Your task to perform on an android device: Do I have any events today? Image 0: 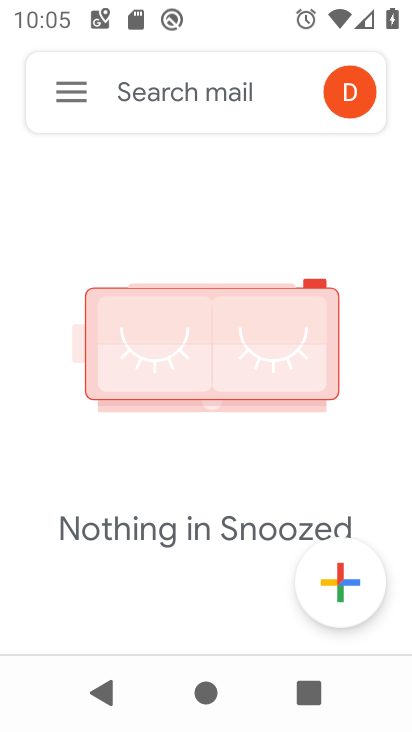
Step 0: press home button
Your task to perform on an android device: Do I have any events today? Image 1: 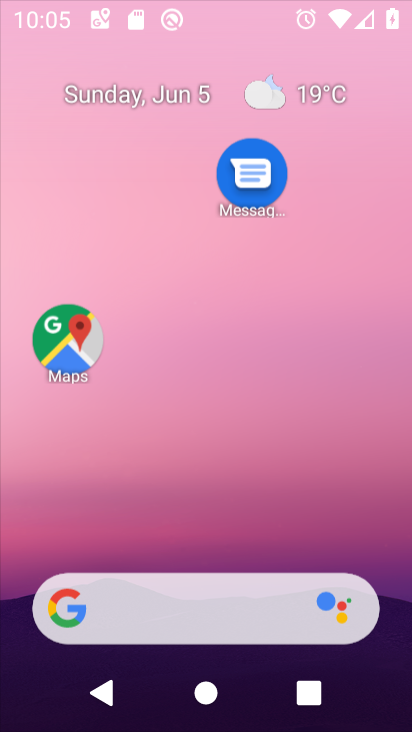
Step 1: drag from (207, 548) to (263, 10)
Your task to perform on an android device: Do I have any events today? Image 2: 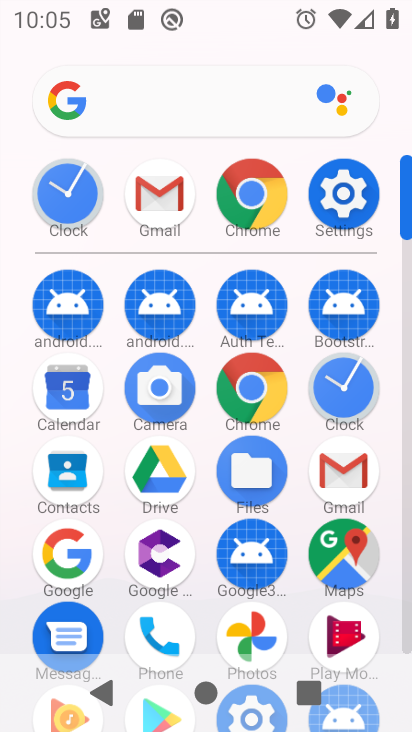
Step 2: click (62, 379)
Your task to perform on an android device: Do I have any events today? Image 3: 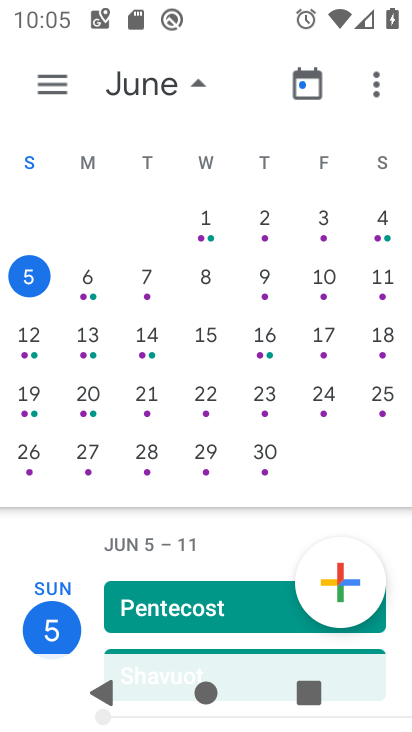
Step 3: click (159, 96)
Your task to perform on an android device: Do I have any events today? Image 4: 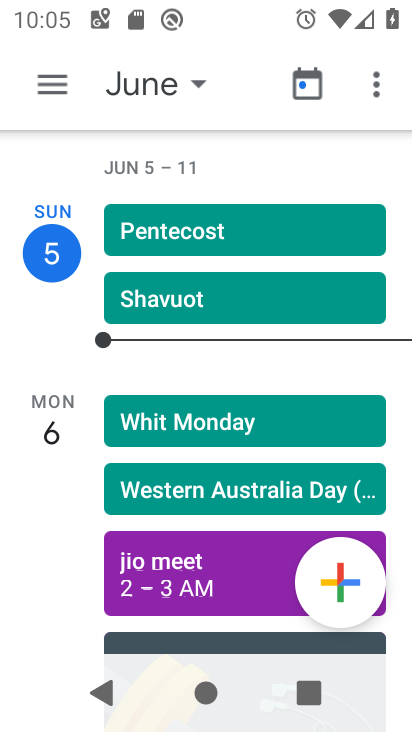
Step 4: drag from (143, 543) to (146, 144)
Your task to perform on an android device: Do I have any events today? Image 5: 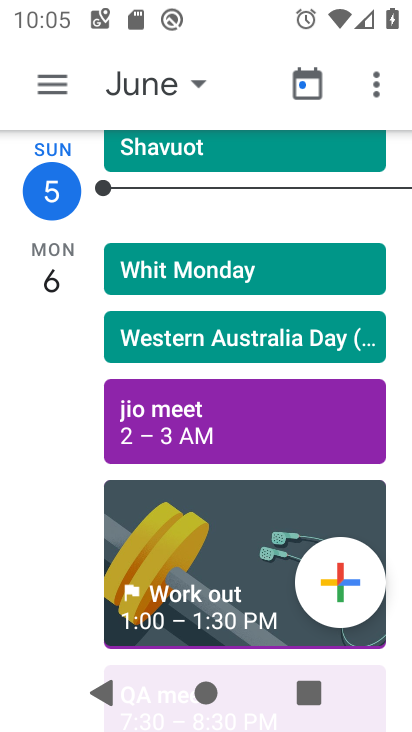
Step 5: drag from (191, 493) to (249, 214)
Your task to perform on an android device: Do I have any events today? Image 6: 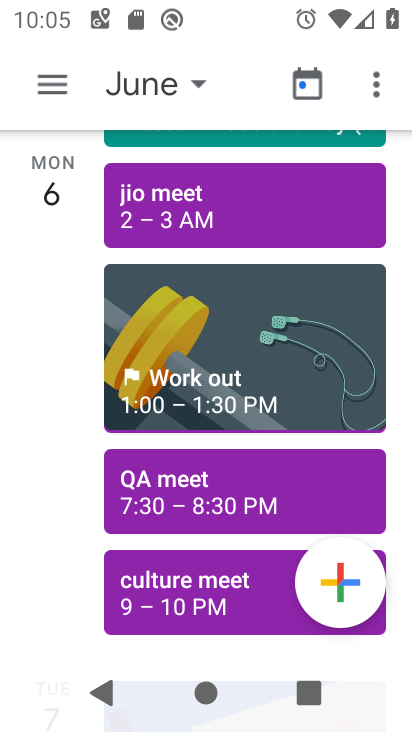
Step 6: drag from (228, 401) to (258, 728)
Your task to perform on an android device: Do I have any events today? Image 7: 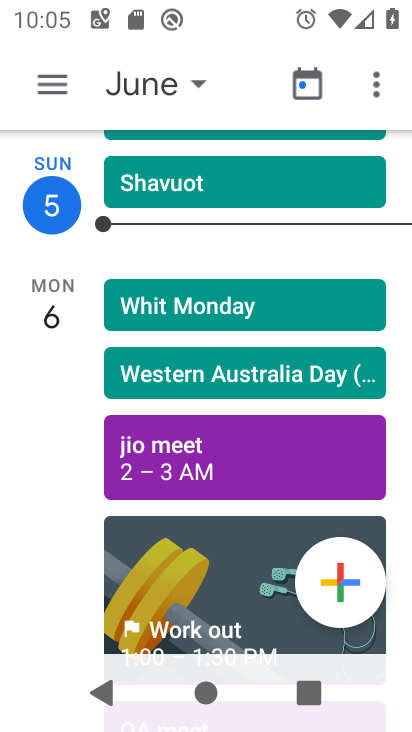
Step 7: drag from (281, 269) to (312, 625)
Your task to perform on an android device: Do I have any events today? Image 8: 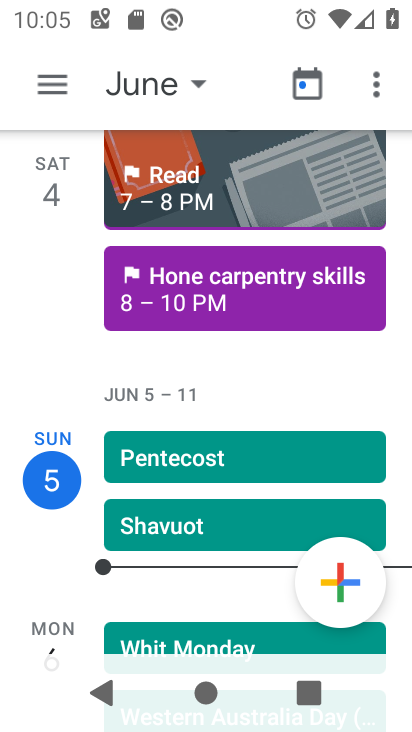
Step 8: drag from (220, 571) to (261, 153)
Your task to perform on an android device: Do I have any events today? Image 9: 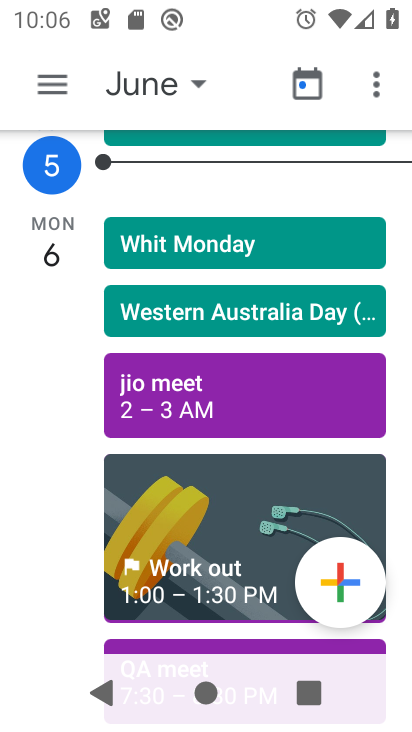
Step 9: drag from (205, 573) to (267, 229)
Your task to perform on an android device: Do I have any events today? Image 10: 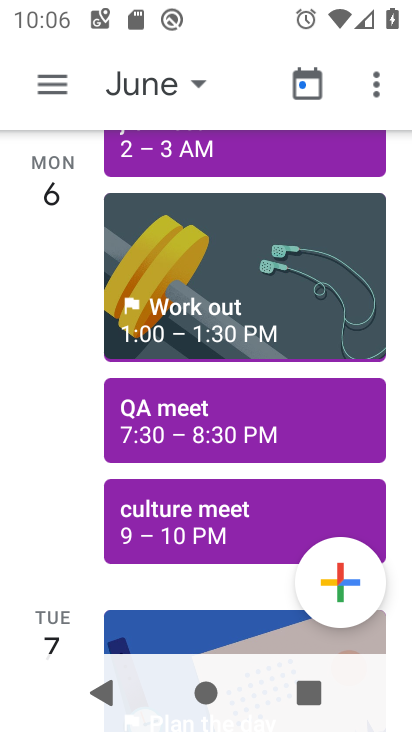
Step 10: drag from (246, 331) to (248, 659)
Your task to perform on an android device: Do I have any events today? Image 11: 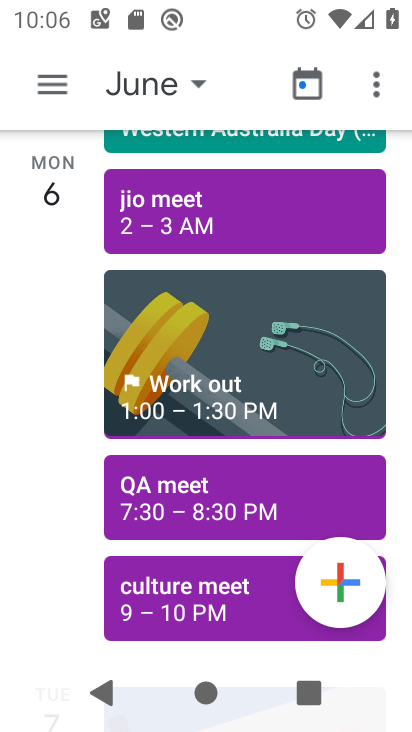
Step 11: drag from (208, 215) to (352, 690)
Your task to perform on an android device: Do I have any events today? Image 12: 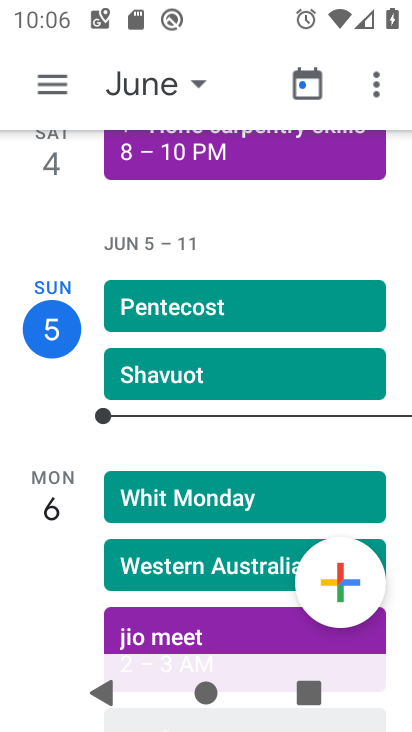
Step 12: click (210, 77)
Your task to perform on an android device: Do I have any events today? Image 13: 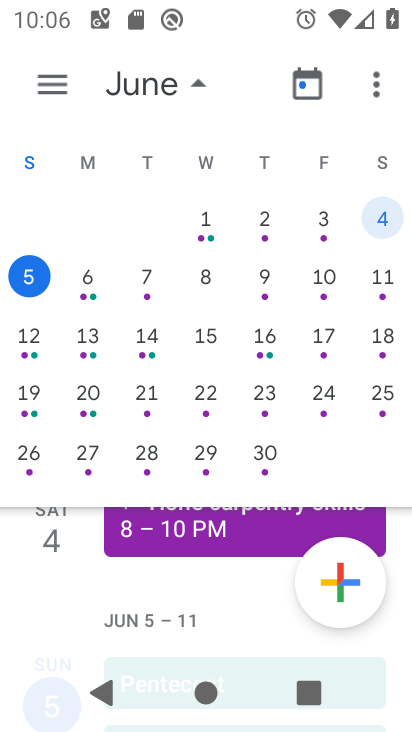
Step 13: drag from (236, 486) to (277, 173)
Your task to perform on an android device: Do I have any events today? Image 14: 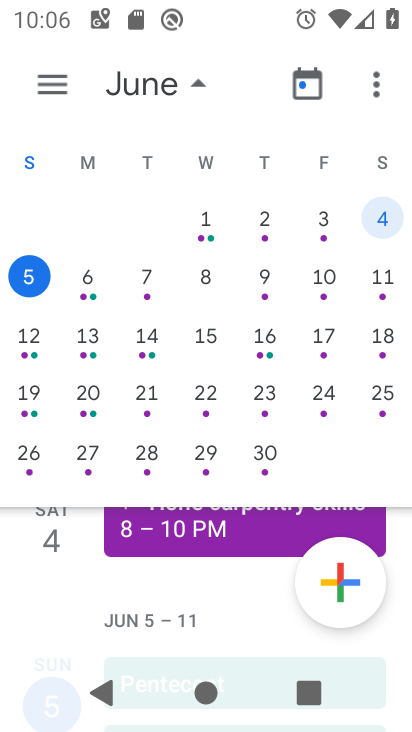
Step 14: click (60, 283)
Your task to perform on an android device: Do I have any events today? Image 15: 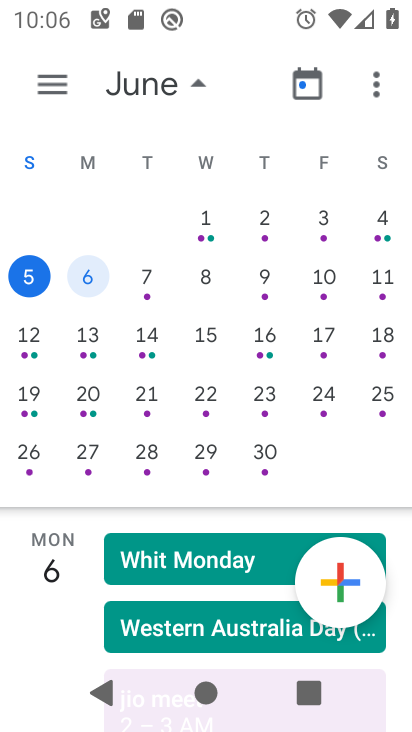
Step 15: click (19, 270)
Your task to perform on an android device: Do I have any events today? Image 16: 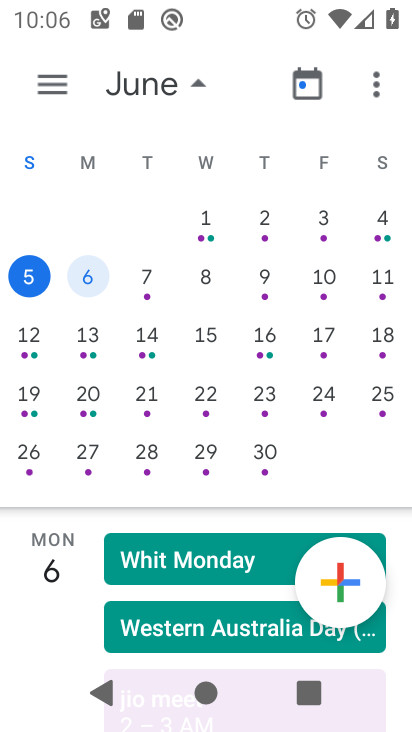
Step 16: click (21, 273)
Your task to perform on an android device: Do I have any events today? Image 17: 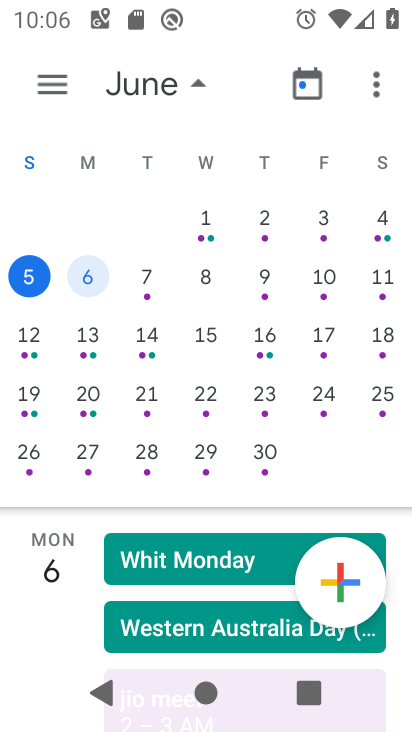
Step 17: click (26, 281)
Your task to perform on an android device: Do I have any events today? Image 18: 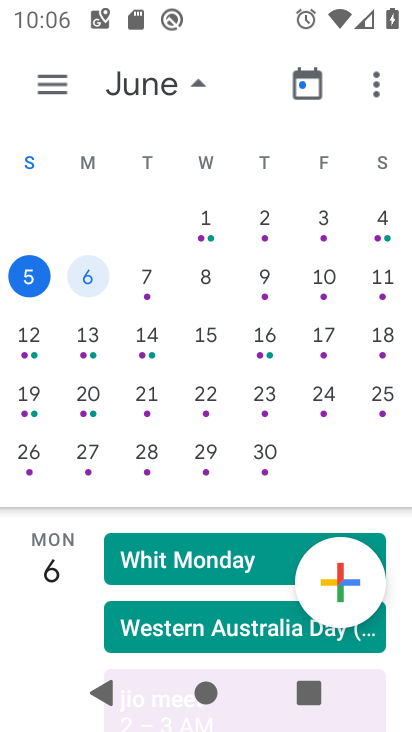
Step 18: click (38, 270)
Your task to perform on an android device: Do I have any events today? Image 19: 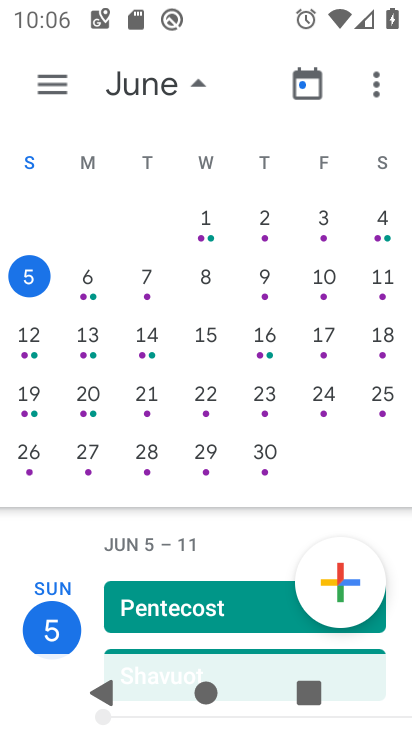
Step 19: task complete